Your task to perform on an android device: turn on location history Image 0: 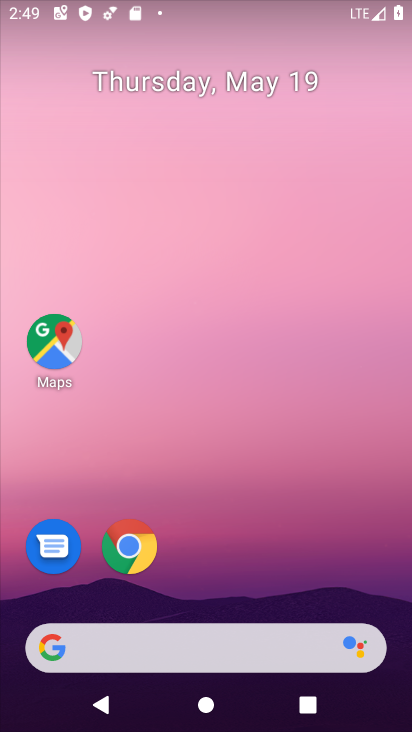
Step 0: press home button
Your task to perform on an android device: turn on location history Image 1: 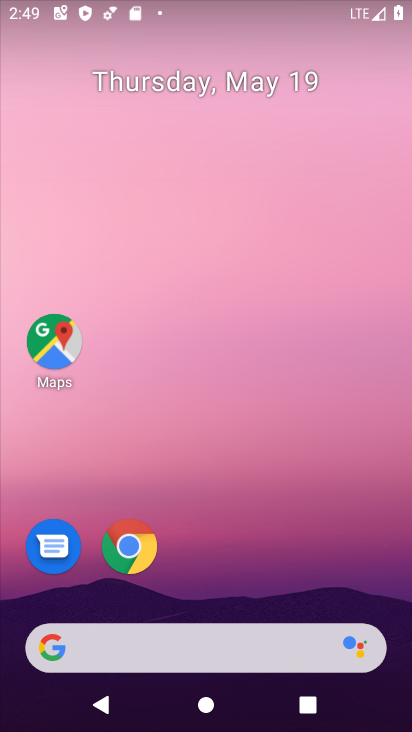
Step 1: drag from (152, 659) to (317, 85)
Your task to perform on an android device: turn on location history Image 2: 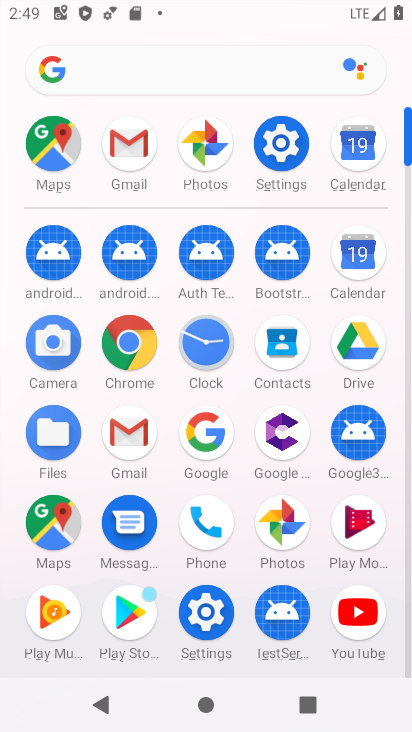
Step 2: click (49, 158)
Your task to perform on an android device: turn on location history Image 3: 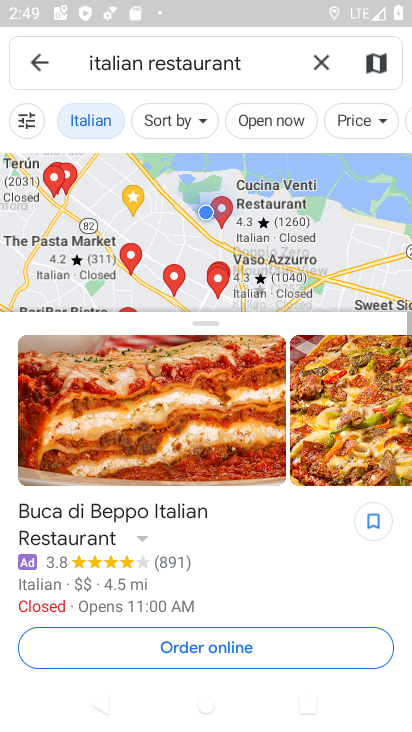
Step 3: click (37, 58)
Your task to perform on an android device: turn on location history Image 4: 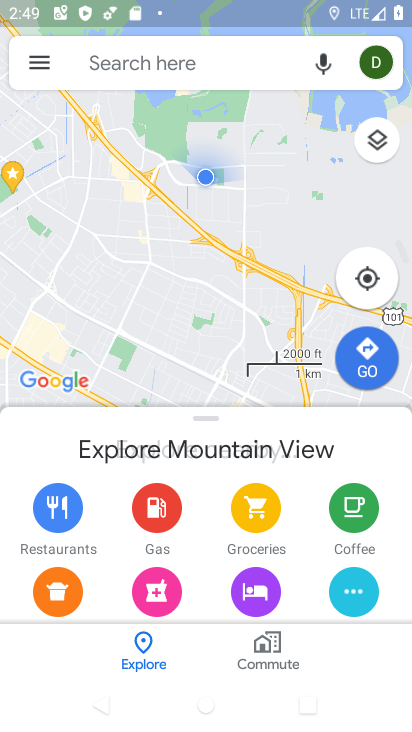
Step 4: click (37, 57)
Your task to perform on an android device: turn on location history Image 5: 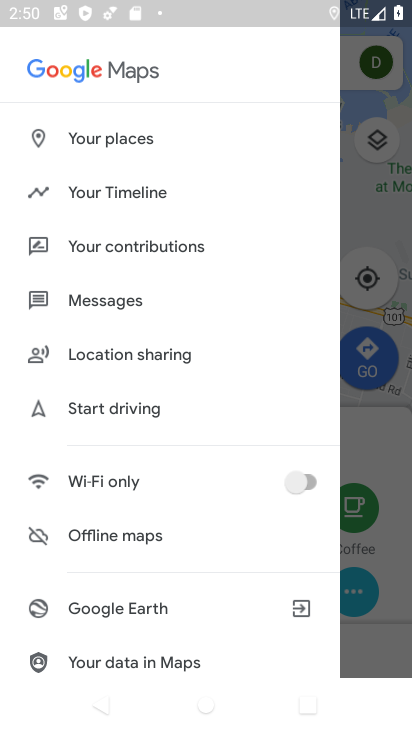
Step 5: drag from (186, 578) to (159, 617)
Your task to perform on an android device: turn on location history Image 6: 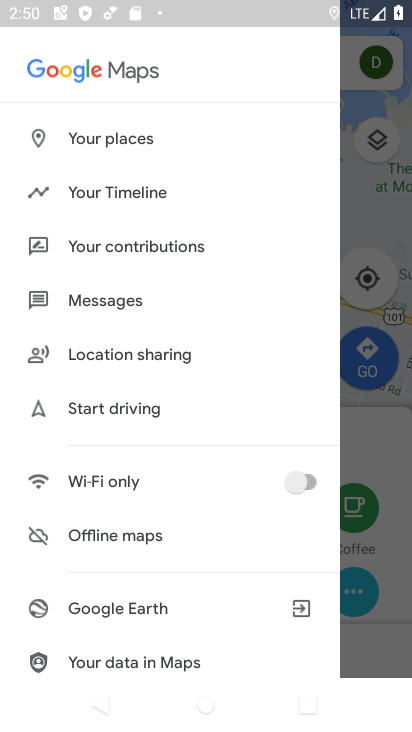
Step 6: click (115, 185)
Your task to perform on an android device: turn on location history Image 7: 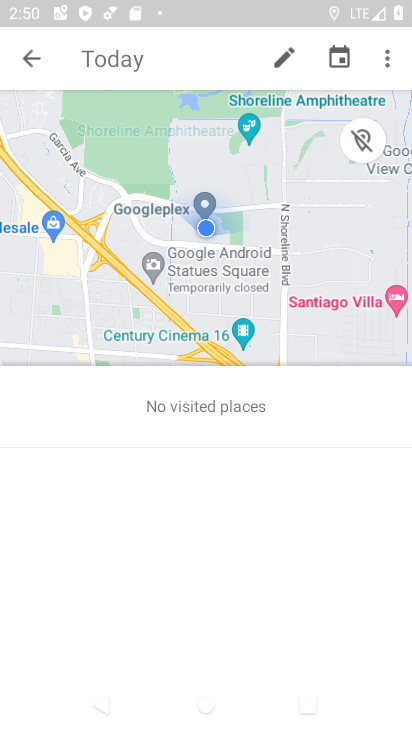
Step 7: click (388, 59)
Your task to perform on an android device: turn on location history Image 8: 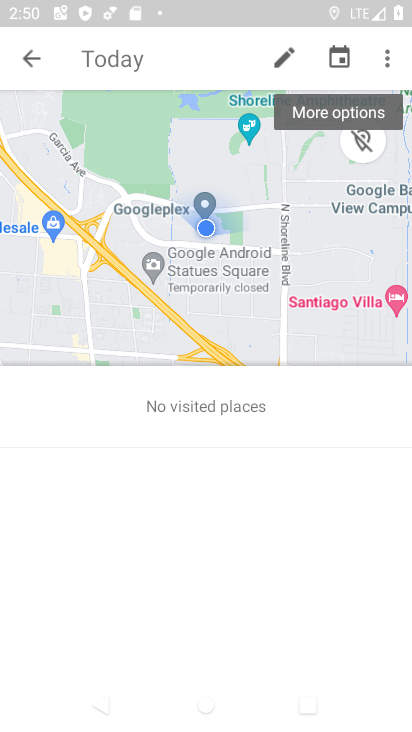
Step 8: click (388, 59)
Your task to perform on an android device: turn on location history Image 9: 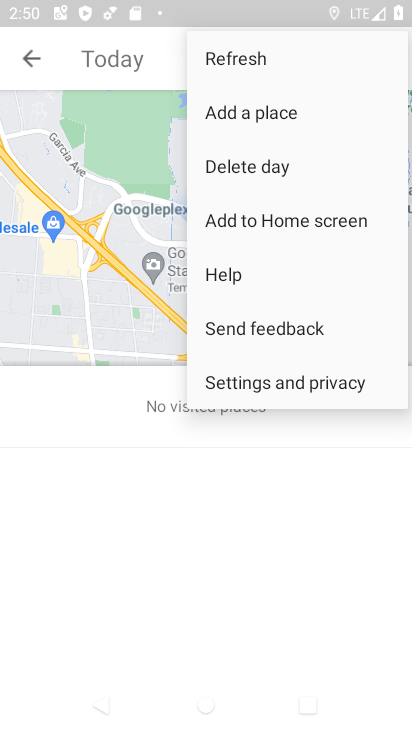
Step 9: click (284, 383)
Your task to perform on an android device: turn on location history Image 10: 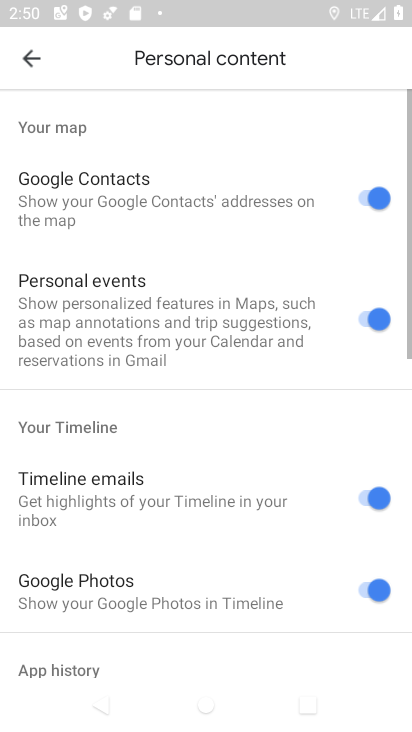
Step 10: drag from (183, 677) to (310, 229)
Your task to perform on an android device: turn on location history Image 11: 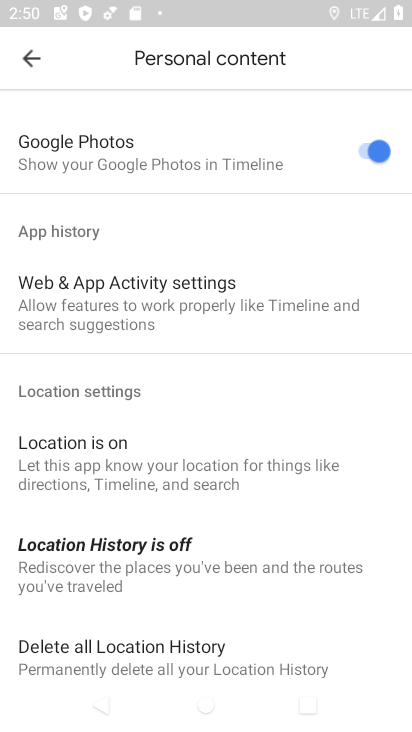
Step 11: click (141, 565)
Your task to perform on an android device: turn on location history Image 12: 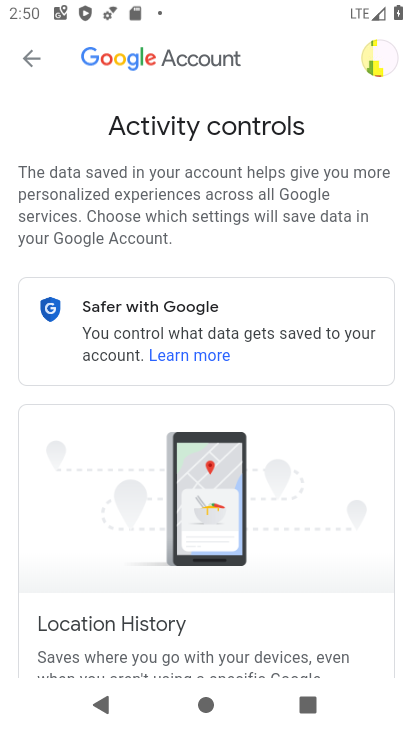
Step 12: task complete